Your task to perform on an android device: Open Yahoo.com Image 0: 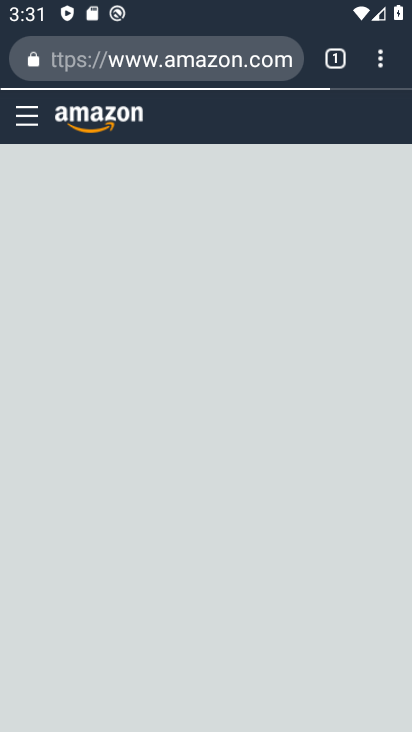
Step 0: click (214, 71)
Your task to perform on an android device: Open Yahoo.com Image 1: 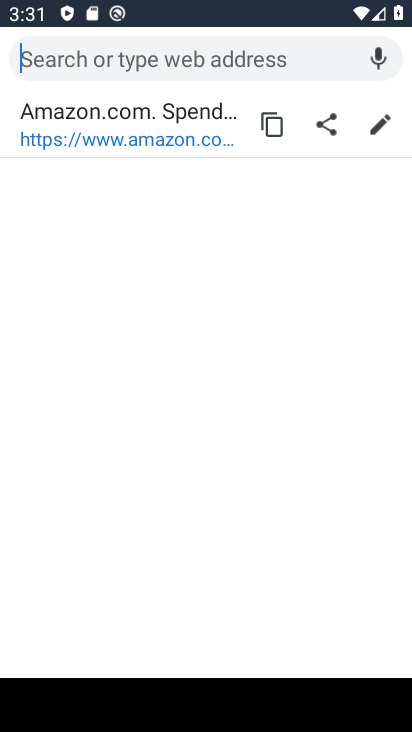
Step 1: type "yahoo.com"
Your task to perform on an android device: Open Yahoo.com Image 2: 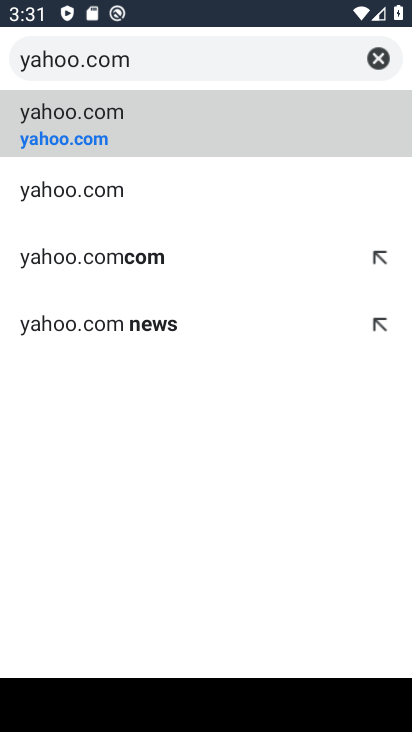
Step 2: click (104, 106)
Your task to perform on an android device: Open Yahoo.com Image 3: 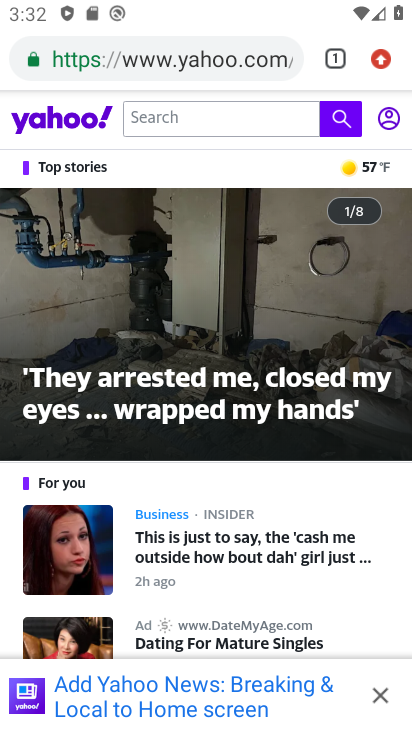
Step 3: task complete